Your task to perform on an android device: change alarm snooze length Image 0: 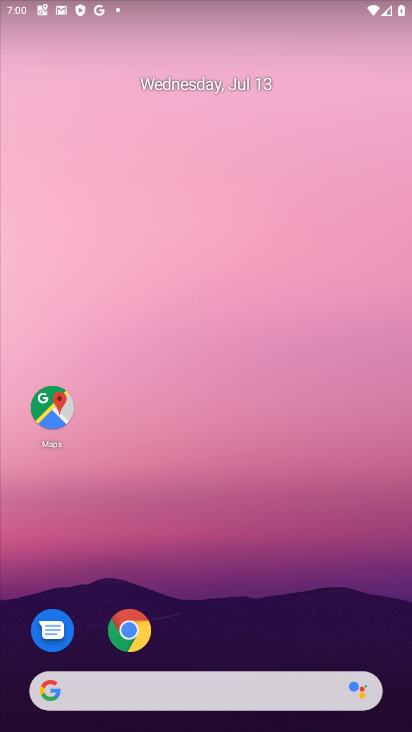
Step 0: drag from (362, 648) to (265, 63)
Your task to perform on an android device: change alarm snooze length Image 1: 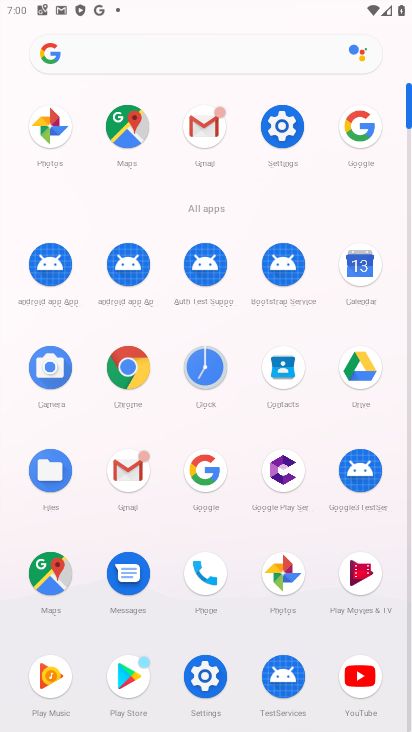
Step 1: click (204, 383)
Your task to perform on an android device: change alarm snooze length Image 2: 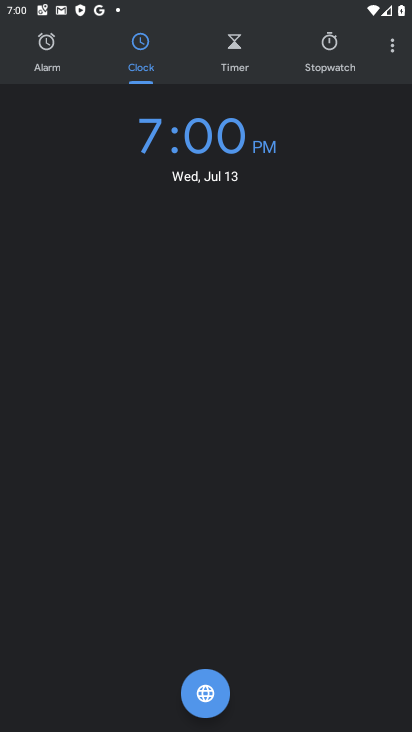
Step 2: click (388, 42)
Your task to perform on an android device: change alarm snooze length Image 3: 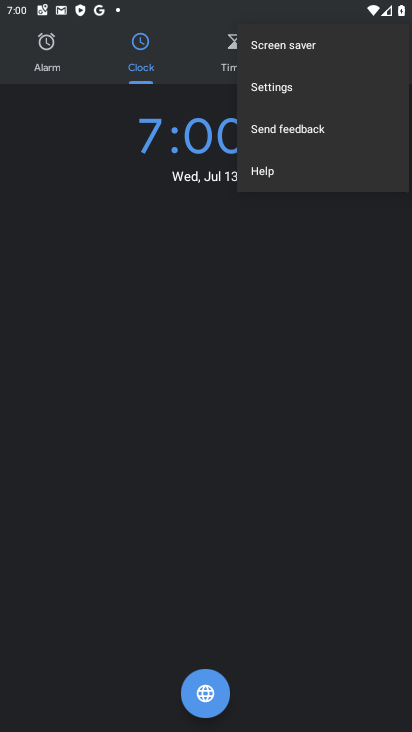
Step 3: click (286, 95)
Your task to perform on an android device: change alarm snooze length Image 4: 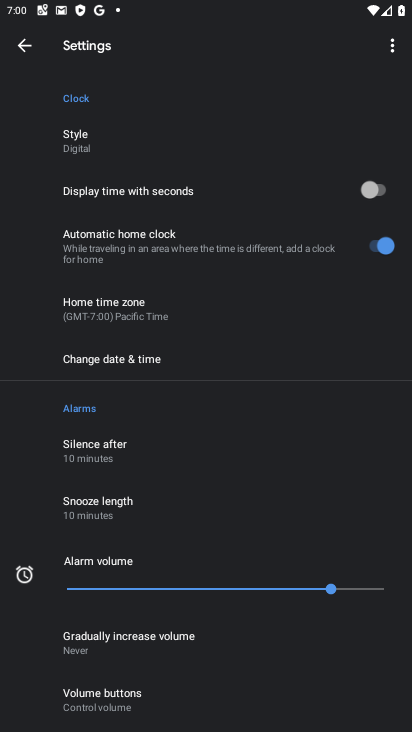
Step 4: click (145, 525)
Your task to perform on an android device: change alarm snooze length Image 5: 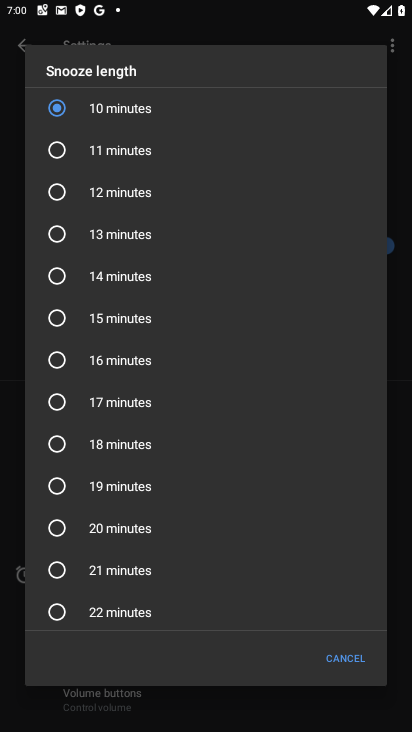
Step 5: click (60, 528)
Your task to perform on an android device: change alarm snooze length Image 6: 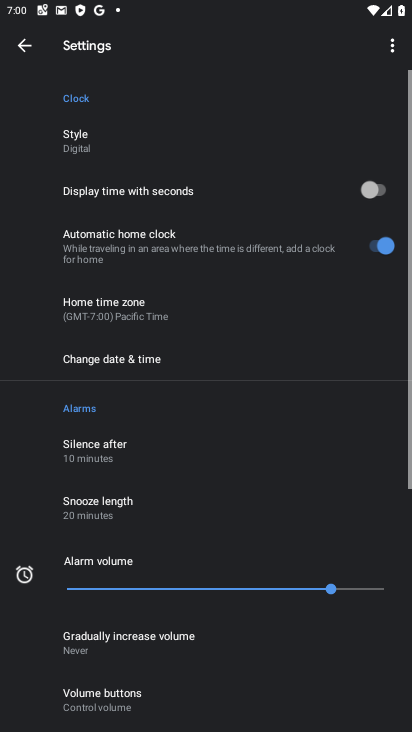
Step 6: task complete